Your task to perform on an android device: Open notification settings Image 0: 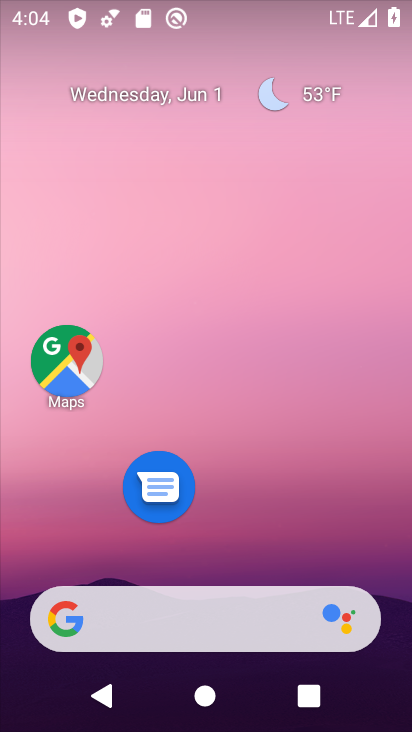
Step 0: drag from (231, 554) to (359, 4)
Your task to perform on an android device: Open notification settings Image 1: 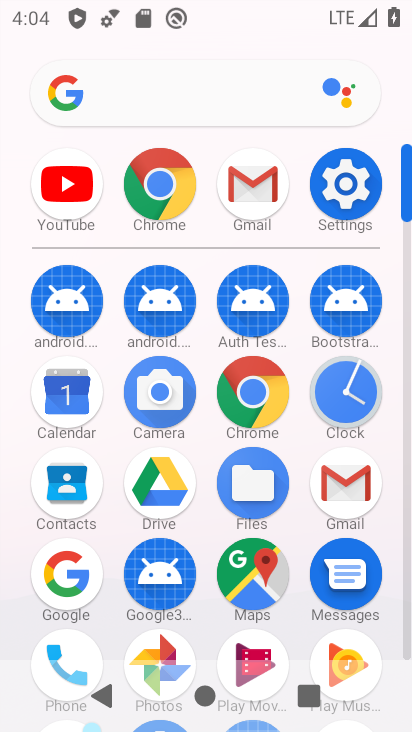
Step 1: click (346, 204)
Your task to perform on an android device: Open notification settings Image 2: 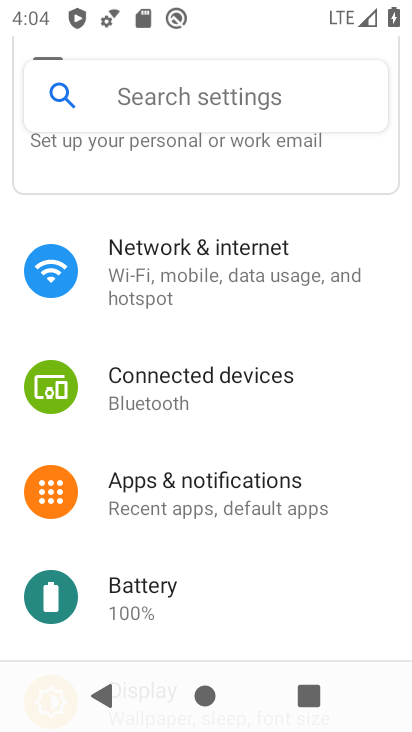
Step 2: click (225, 494)
Your task to perform on an android device: Open notification settings Image 3: 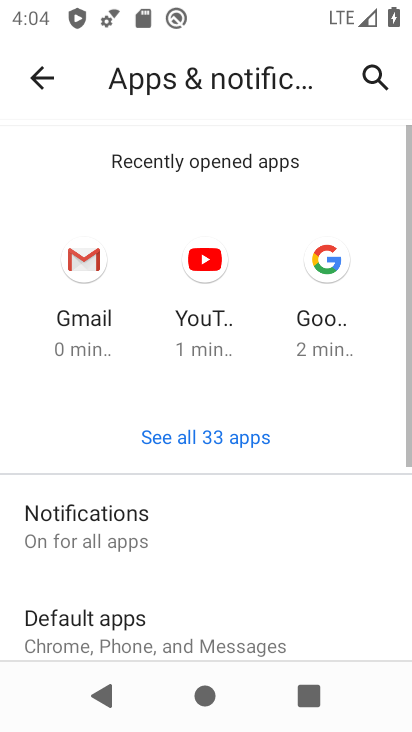
Step 3: click (144, 536)
Your task to perform on an android device: Open notification settings Image 4: 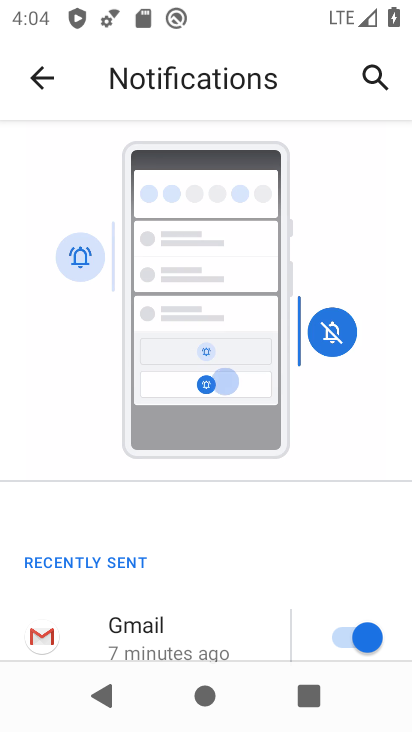
Step 4: task complete